Your task to perform on an android device: turn on sleep mode Image 0: 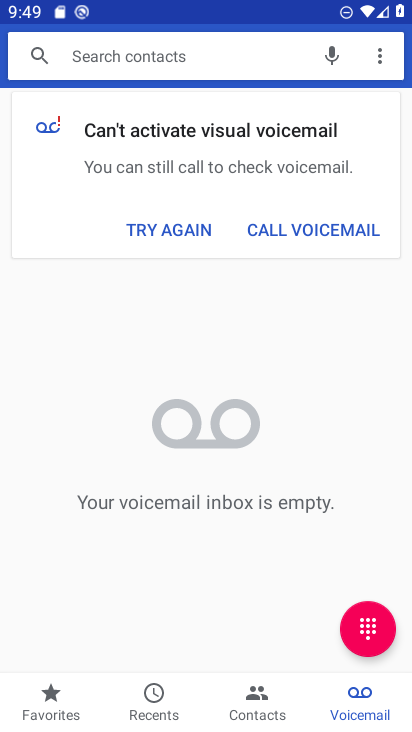
Step 0: press home button
Your task to perform on an android device: turn on sleep mode Image 1: 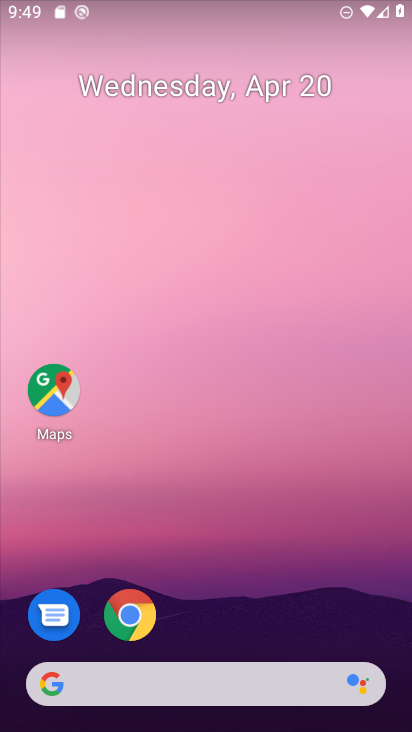
Step 1: drag from (216, 590) to (268, 250)
Your task to perform on an android device: turn on sleep mode Image 2: 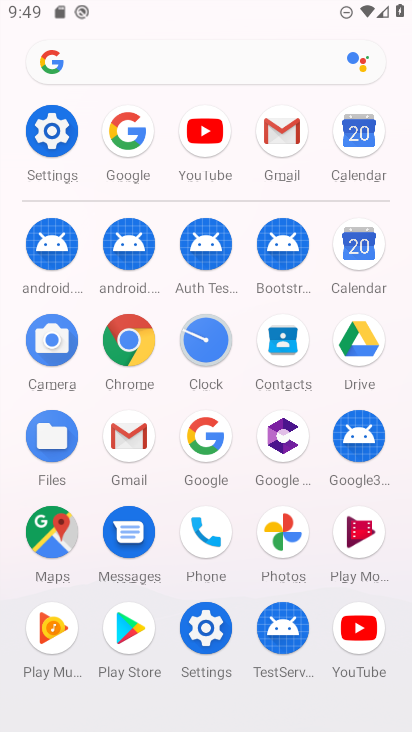
Step 2: click (53, 129)
Your task to perform on an android device: turn on sleep mode Image 3: 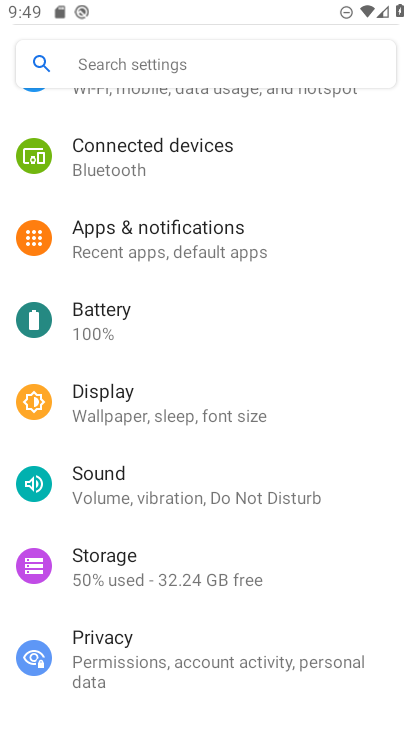
Step 3: drag from (203, 458) to (242, 262)
Your task to perform on an android device: turn on sleep mode Image 4: 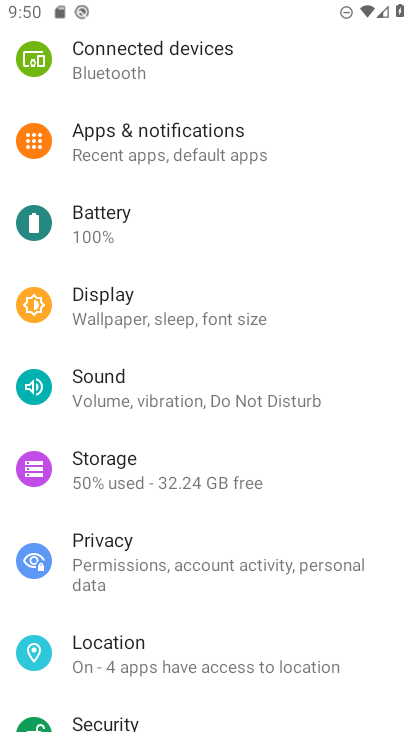
Step 4: drag from (179, 461) to (206, 253)
Your task to perform on an android device: turn on sleep mode Image 5: 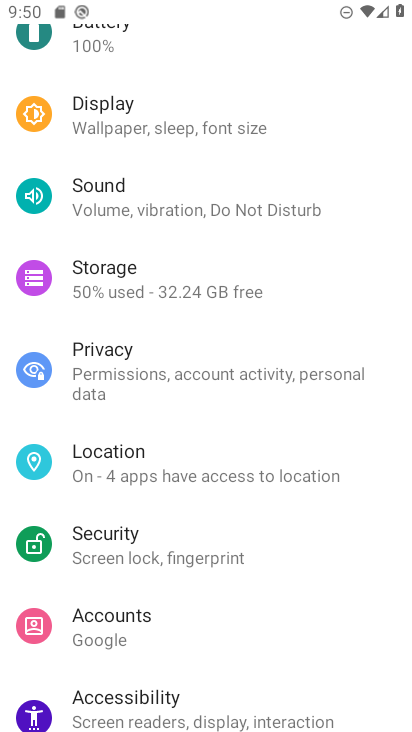
Step 5: drag from (167, 475) to (211, 329)
Your task to perform on an android device: turn on sleep mode Image 6: 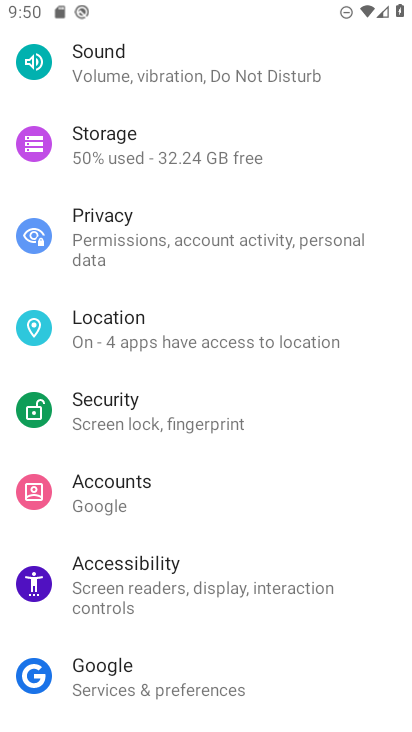
Step 6: drag from (167, 495) to (237, 343)
Your task to perform on an android device: turn on sleep mode Image 7: 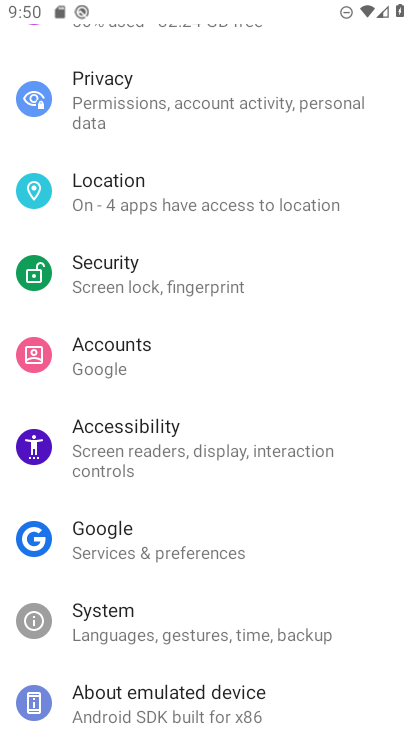
Step 7: drag from (176, 453) to (197, 286)
Your task to perform on an android device: turn on sleep mode Image 8: 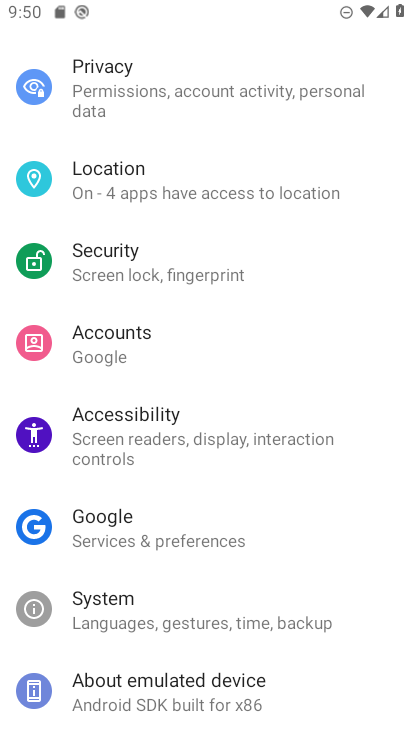
Step 8: click (164, 428)
Your task to perform on an android device: turn on sleep mode Image 9: 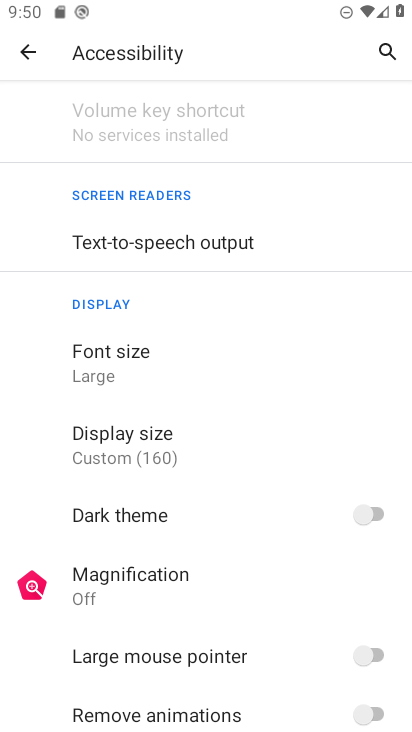
Step 9: task complete